Your task to perform on an android device: Go to CNN.com Image 0: 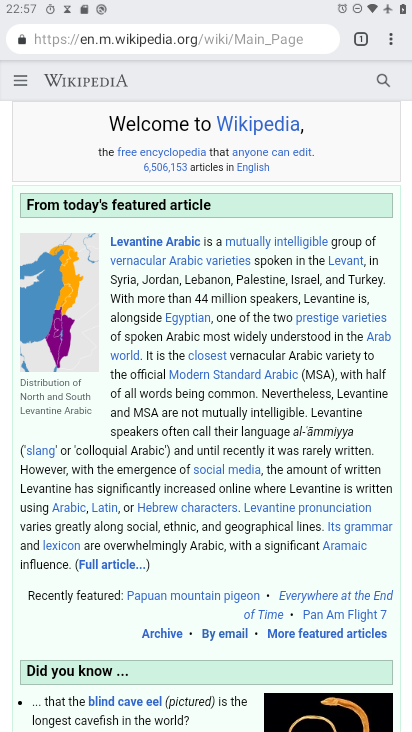
Step 0: press home button
Your task to perform on an android device: Go to CNN.com Image 1: 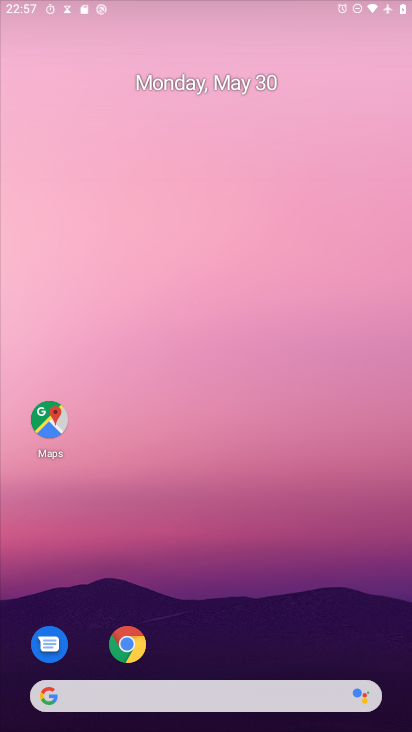
Step 1: drag from (243, 639) to (275, 2)
Your task to perform on an android device: Go to CNN.com Image 2: 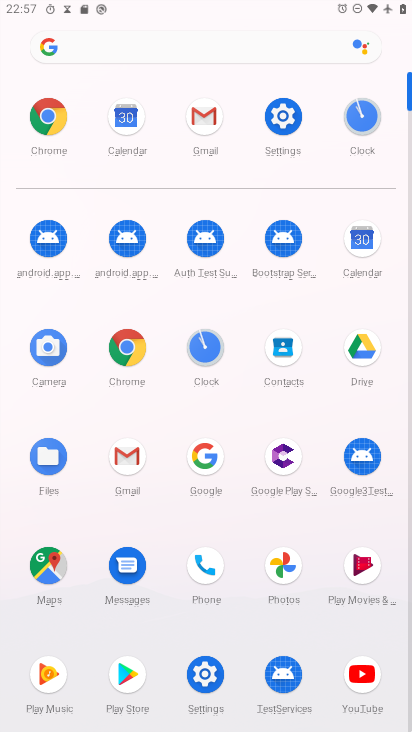
Step 2: click (207, 455)
Your task to perform on an android device: Go to CNN.com Image 3: 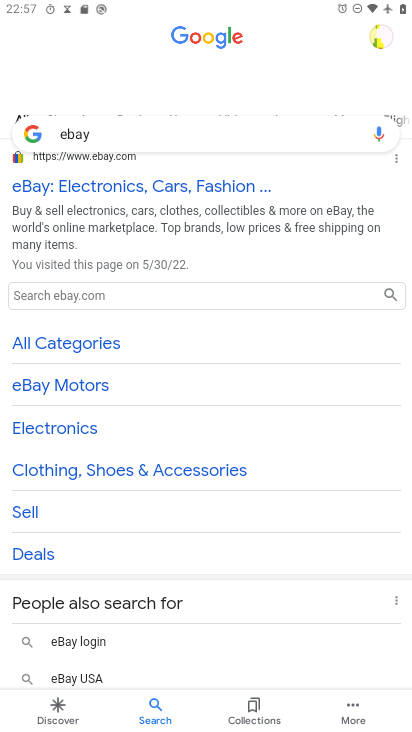
Step 3: click (205, 135)
Your task to perform on an android device: Go to CNN.com Image 4: 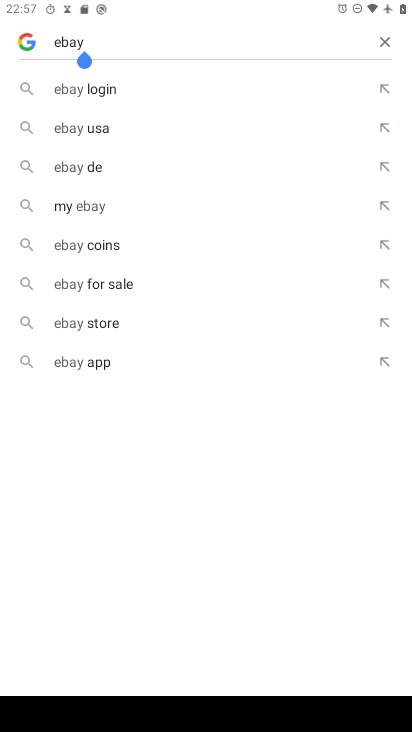
Step 4: click (387, 39)
Your task to perform on an android device: Go to CNN.com Image 5: 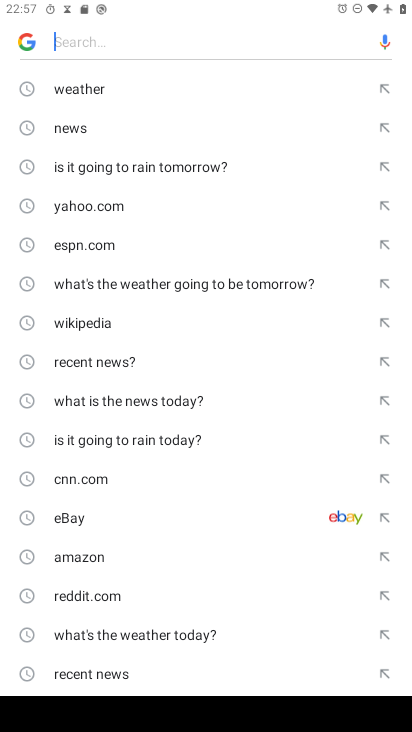
Step 5: click (75, 478)
Your task to perform on an android device: Go to CNN.com Image 6: 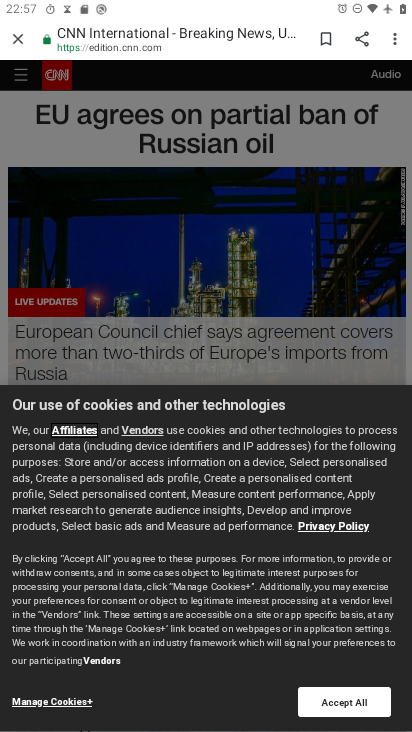
Step 6: task complete